Your task to perform on an android device: Is it going to rain today? Image 0: 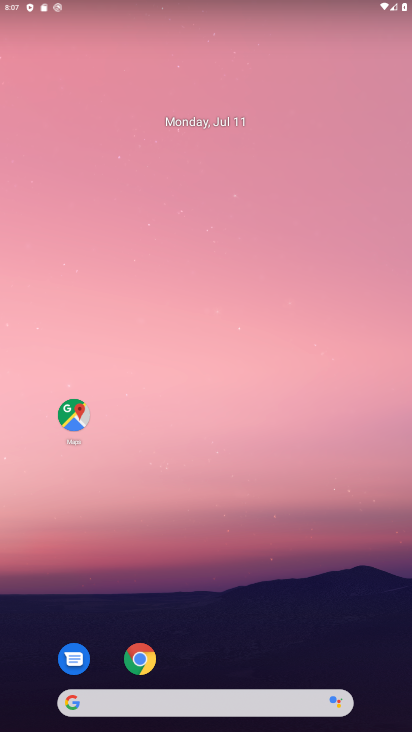
Step 0: click (189, 697)
Your task to perform on an android device: Is it going to rain today? Image 1: 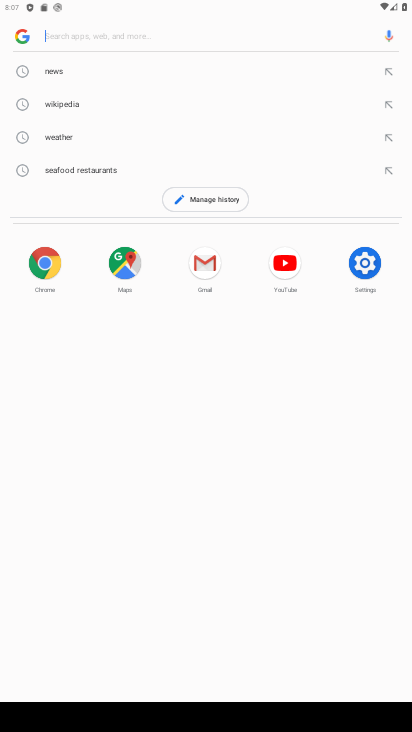
Step 1: click (60, 28)
Your task to perform on an android device: Is it going to rain today? Image 2: 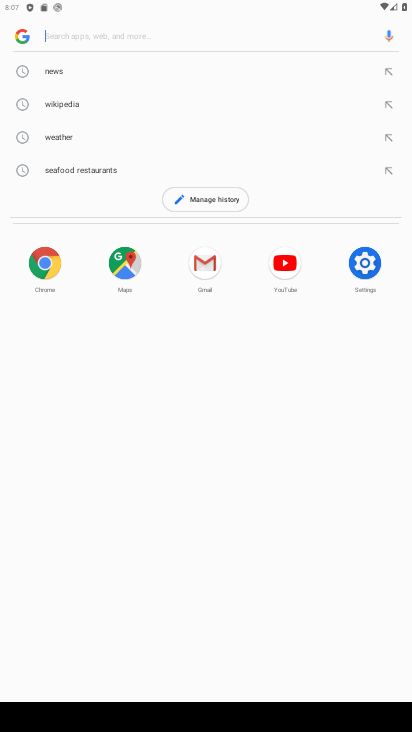
Step 2: type "Is it going to rain today?"
Your task to perform on an android device: Is it going to rain today? Image 3: 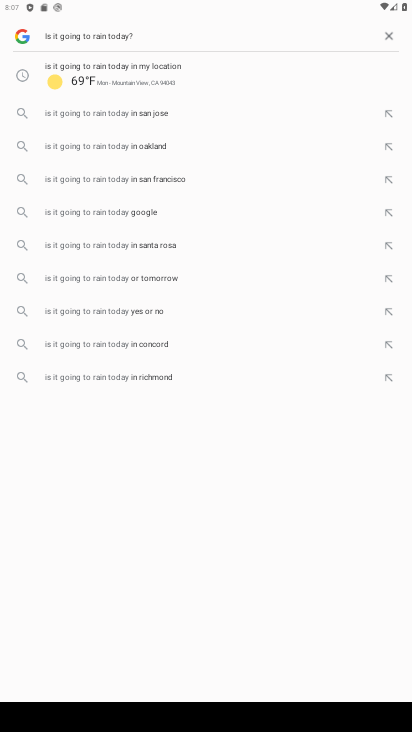
Step 3: task complete